Your task to perform on an android device: Find coffee shops on Maps Image 0: 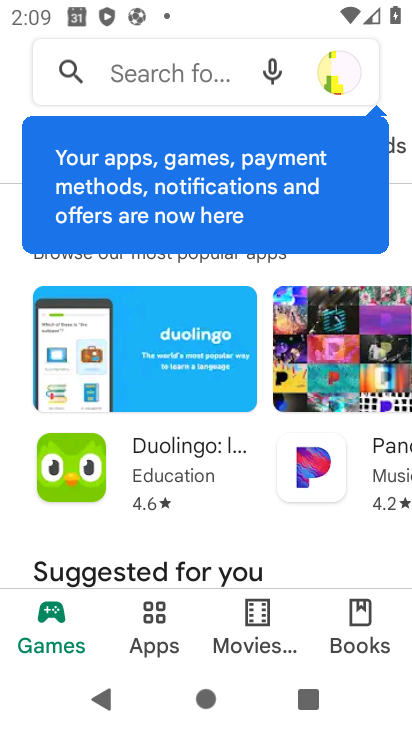
Step 0: press home button
Your task to perform on an android device: Find coffee shops on Maps Image 1: 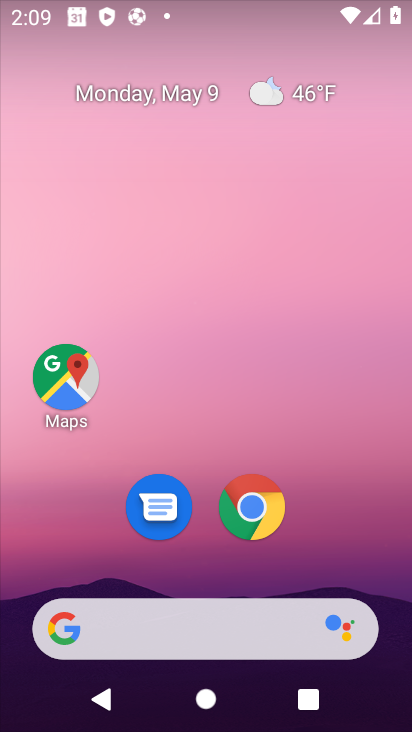
Step 1: click (56, 372)
Your task to perform on an android device: Find coffee shops on Maps Image 2: 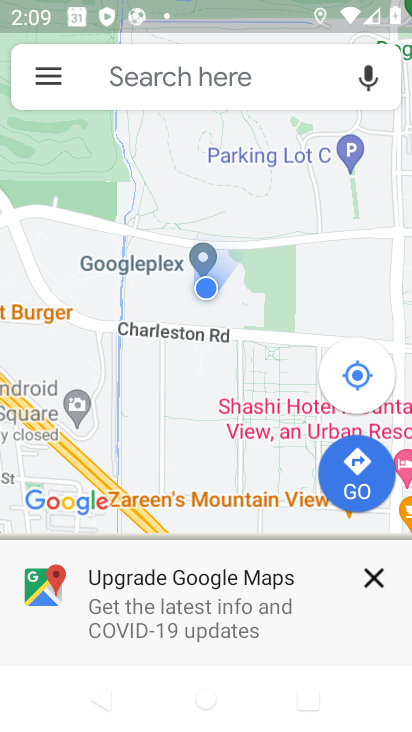
Step 2: click (207, 70)
Your task to perform on an android device: Find coffee shops on Maps Image 3: 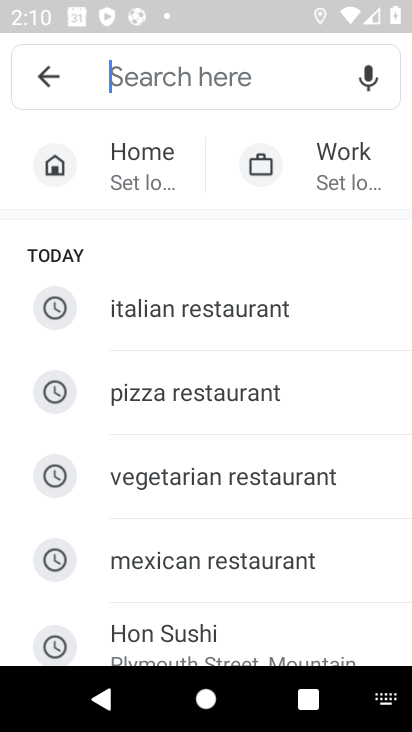
Step 3: type "coffe shops"
Your task to perform on an android device: Find coffee shops on Maps Image 4: 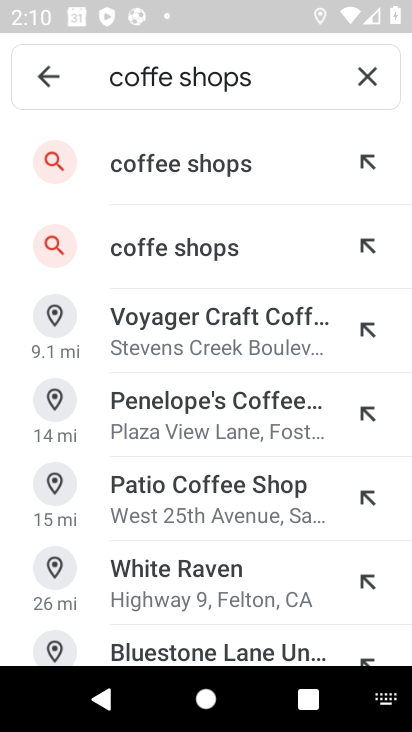
Step 4: click (234, 168)
Your task to perform on an android device: Find coffee shops on Maps Image 5: 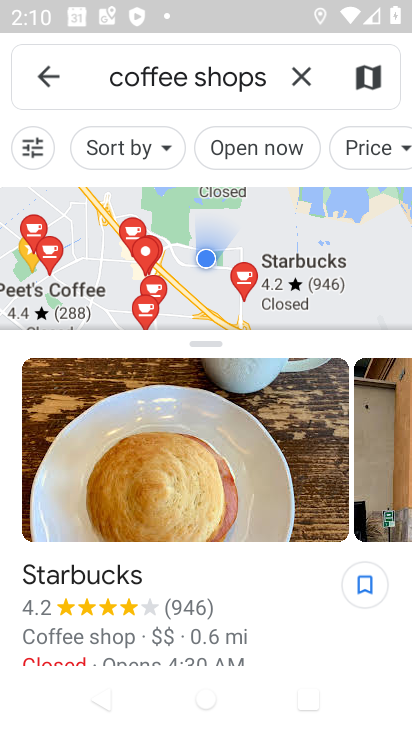
Step 5: task complete